Your task to perform on an android device: Open Android settings Image 0: 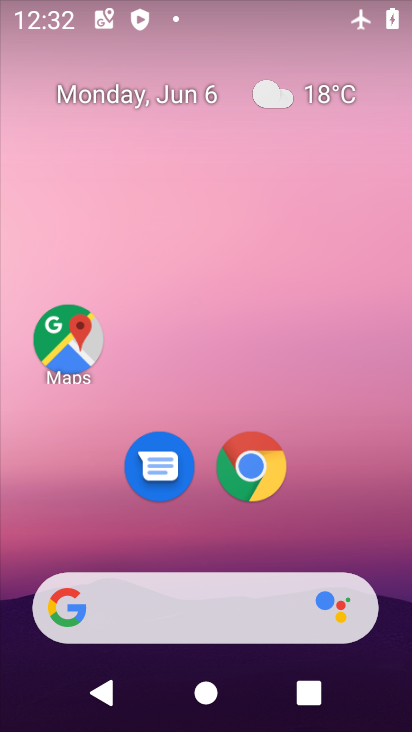
Step 0: drag from (315, 462) to (231, 16)
Your task to perform on an android device: Open Android settings Image 1: 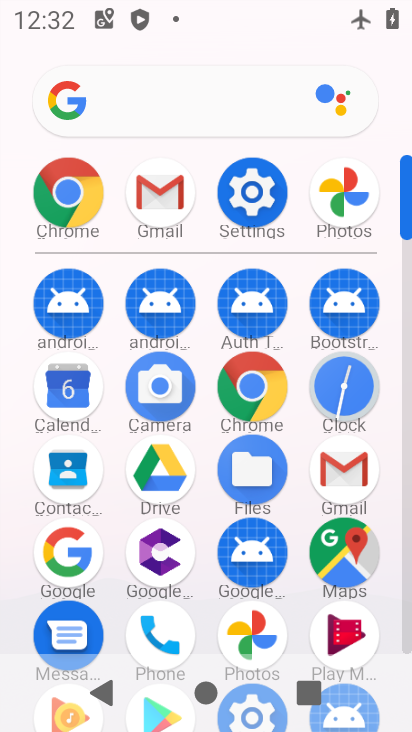
Step 1: drag from (22, 641) to (26, 358)
Your task to perform on an android device: Open Android settings Image 2: 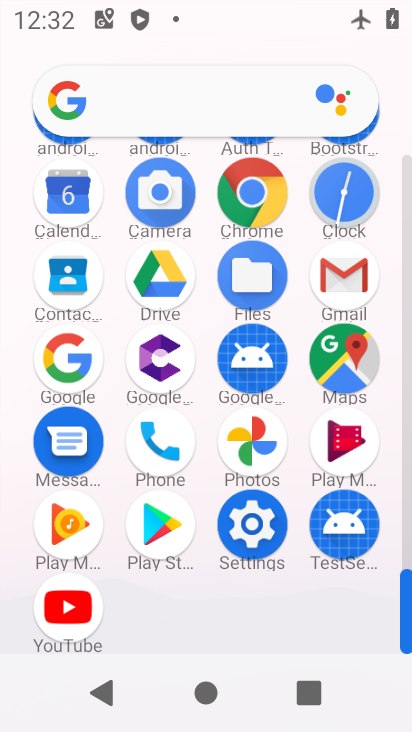
Step 2: click (257, 521)
Your task to perform on an android device: Open Android settings Image 3: 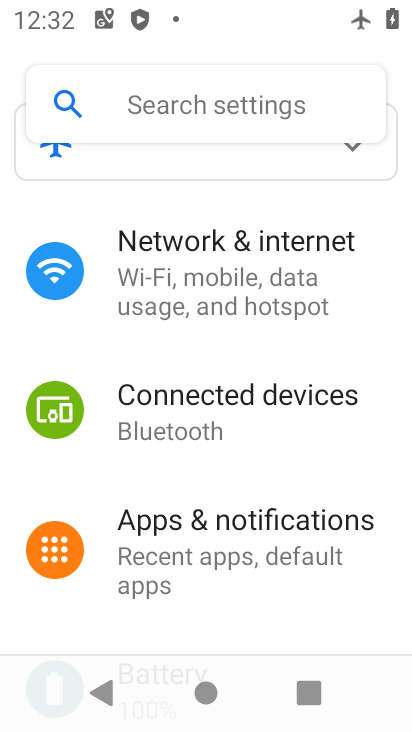
Step 3: task complete